Your task to perform on an android device: delete the emails in spam in the gmail app Image 0: 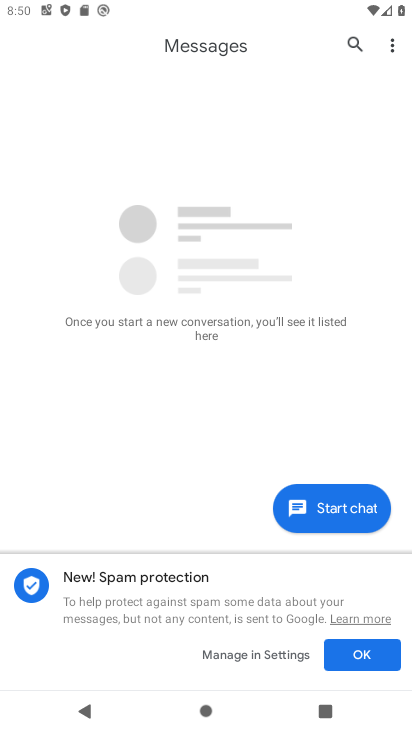
Step 0: press home button
Your task to perform on an android device: delete the emails in spam in the gmail app Image 1: 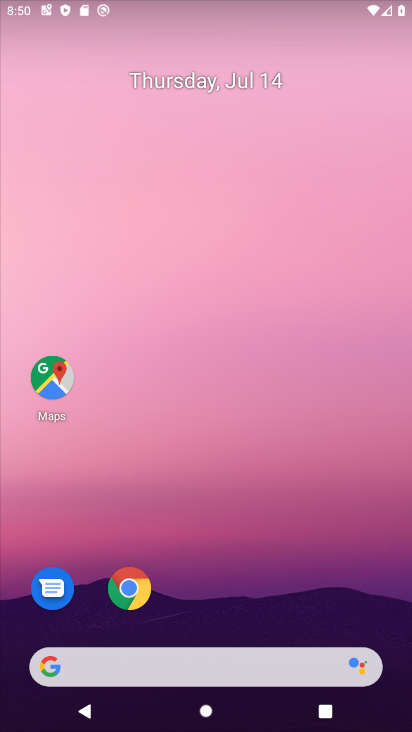
Step 1: drag from (266, 613) to (299, 144)
Your task to perform on an android device: delete the emails in spam in the gmail app Image 2: 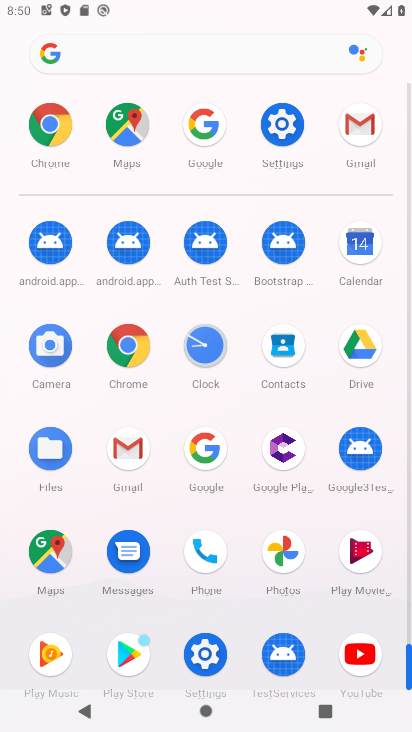
Step 2: click (361, 129)
Your task to perform on an android device: delete the emails in spam in the gmail app Image 3: 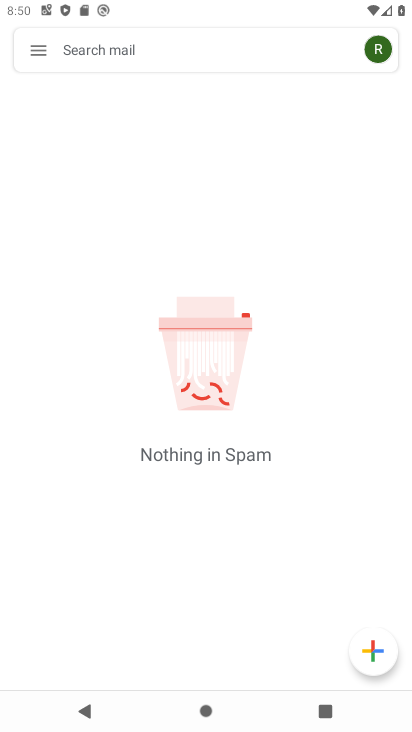
Step 3: click (43, 54)
Your task to perform on an android device: delete the emails in spam in the gmail app Image 4: 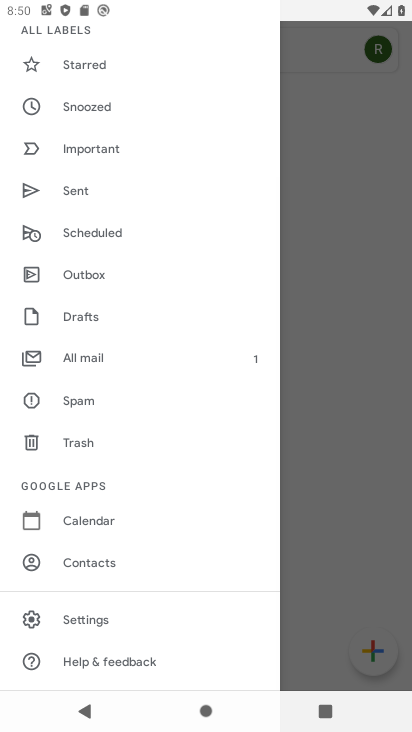
Step 4: click (75, 403)
Your task to perform on an android device: delete the emails in spam in the gmail app Image 5: 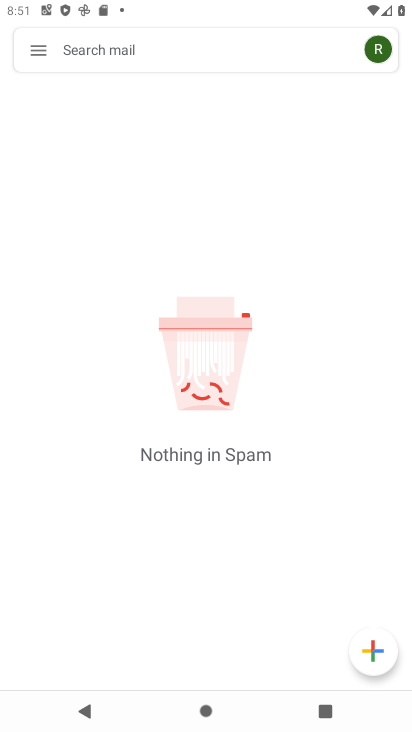
Step 5: task complete